Your task to perform on an android device: Search for pizza restaurants on Maps Image 0: 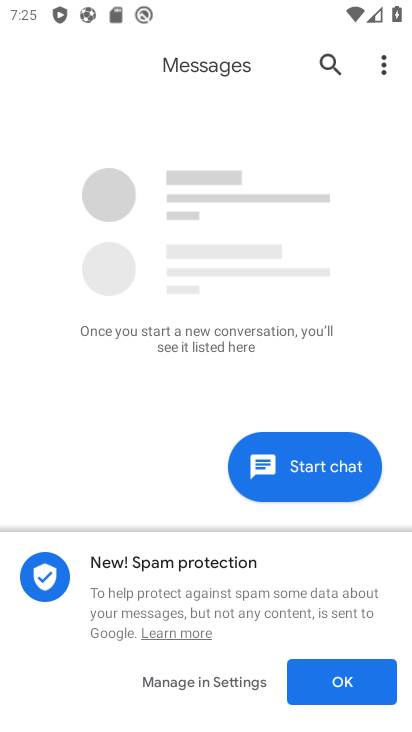
Step 0: press home button
Your task to perform on an android device: Search for pizza restaurants on Maps Image 1: 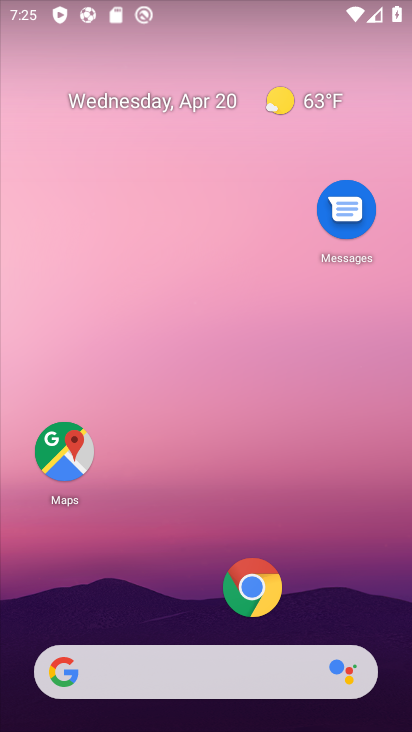
Step 1: drag from (156, 669) to (289, 155)
Your task to perform on an android device: Search for pizza restaurants on Maps Image 2: 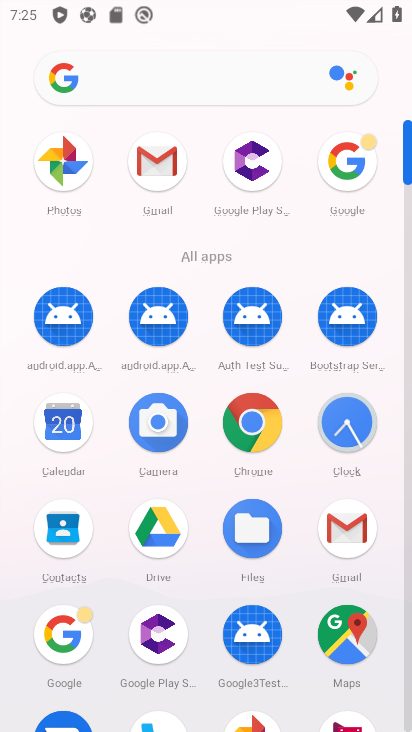
Step 2: click (348, 630)
Your task to perform on an android device: Search for pizza restaurants on Maps Image 3: 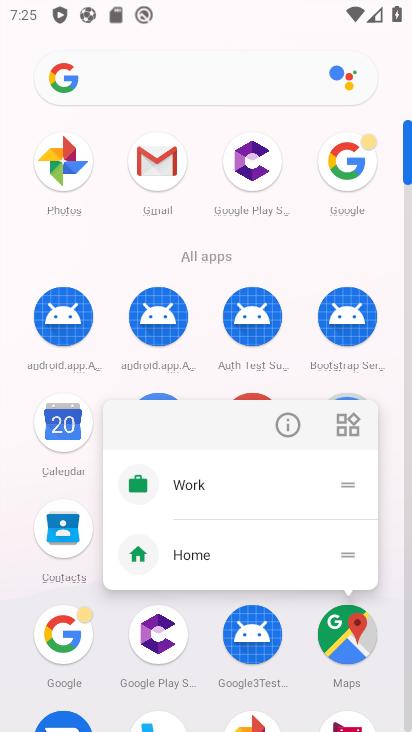
Step 3: click (348, 639)
Your task to perform on an android device: Search for pizza restaurants on Maps Image 4: 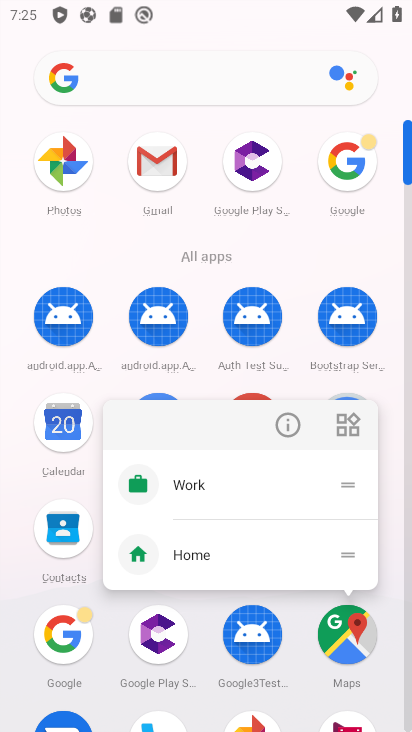
Step 4: click (338, 643)
Your task to perform on an android device: Search for pizza restaurants on Maps Image 5: 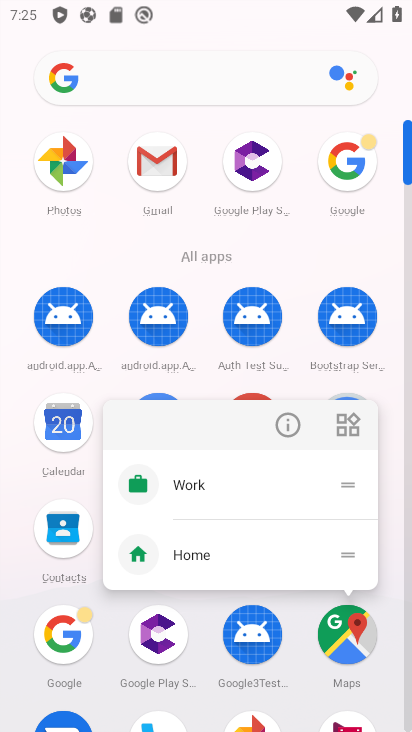
Step 5: click (349, 634)
Your task to perform on an android device: Search for pizza restaurants on Maps Image 6: 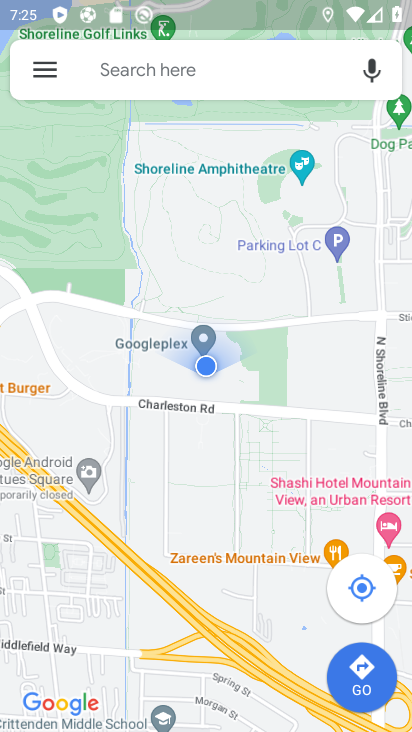
Step 6: click (133, 61)
Your task to perform on an android device: Search for pizza restaurants on Maps Image 7: 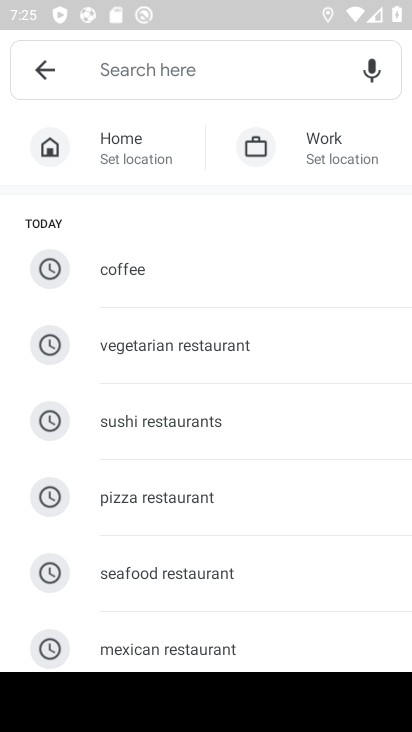
Step 7: click (174, 493)
Your task to perform on an android device: Search for pizza restaurants on Maps Image 8: 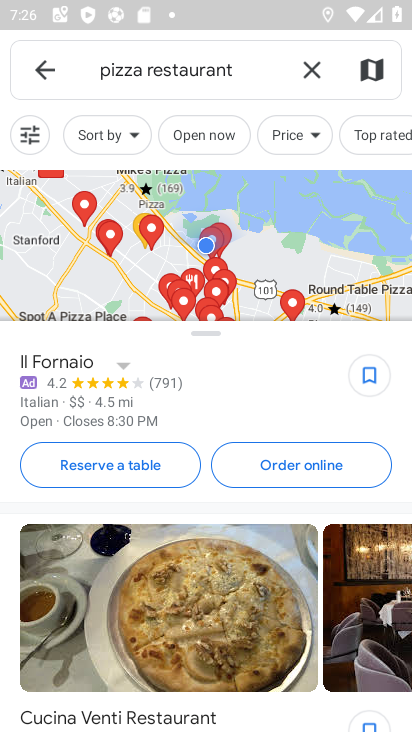
Step 8: task complete